Your task to perform on an android device: Open maps Image 0: 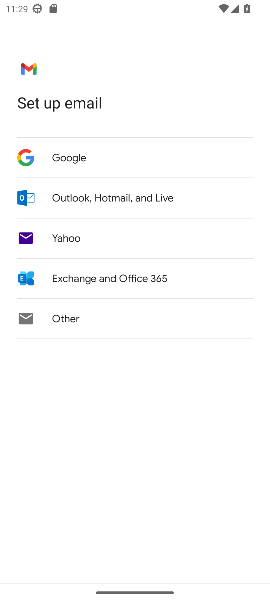
Step 0: press home button
Your task to perform on an android device: Open maps Image 1: 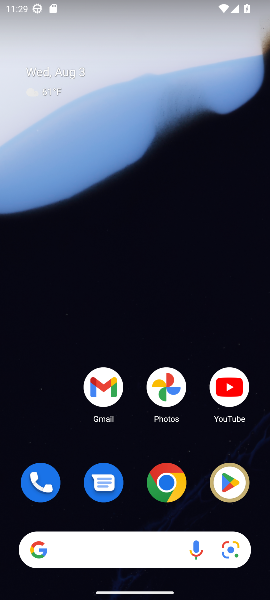
Step 1: drag from (136, 522) to (143, 93)
Your task to perform on an android device: Open maps Image 2: 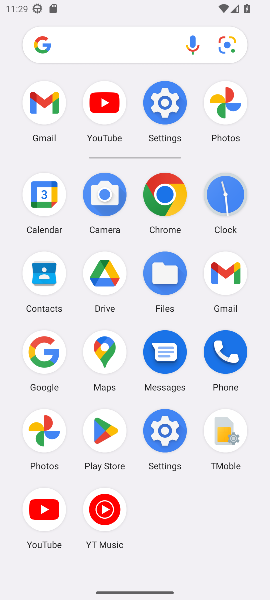
Step 2: click (110, 344)
Your task to perform on an android device: Open maps Image 3: 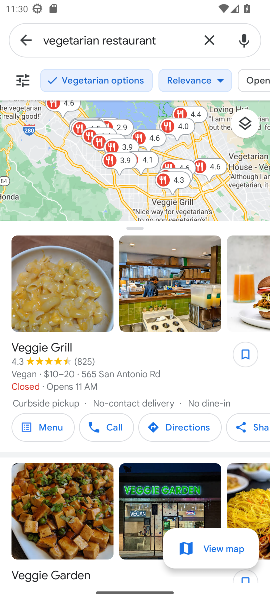
Step 3: task complete